Your task to perform on an android device: Open CNN.com Image 0: 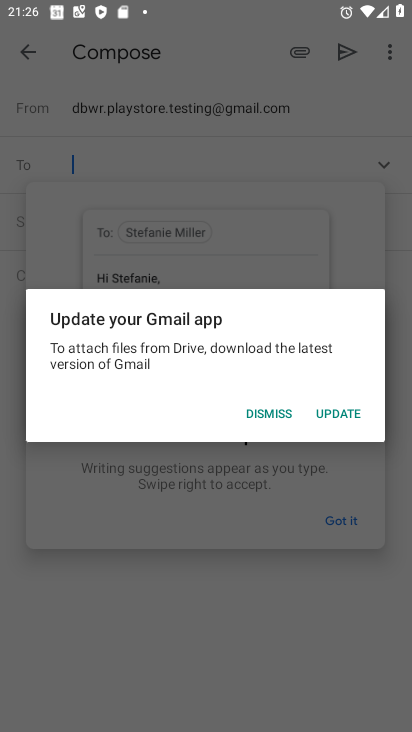
Step 0: press home button
Your task to perform on an android device: Open CNN.com Image 1: 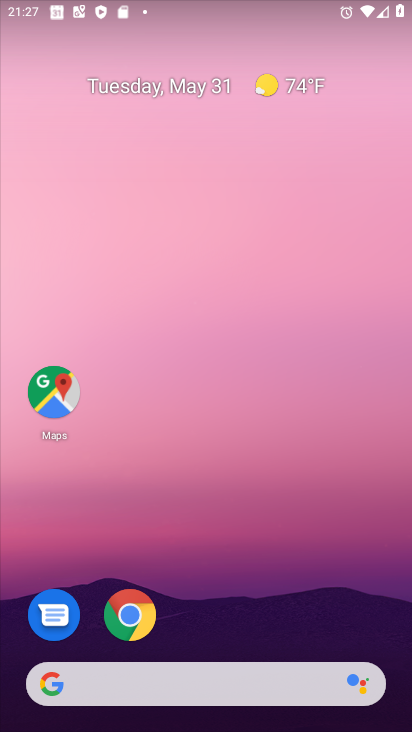
Step 1: click (111, 624)
Your task to perform on an android device: Open CNN.com Image 2: 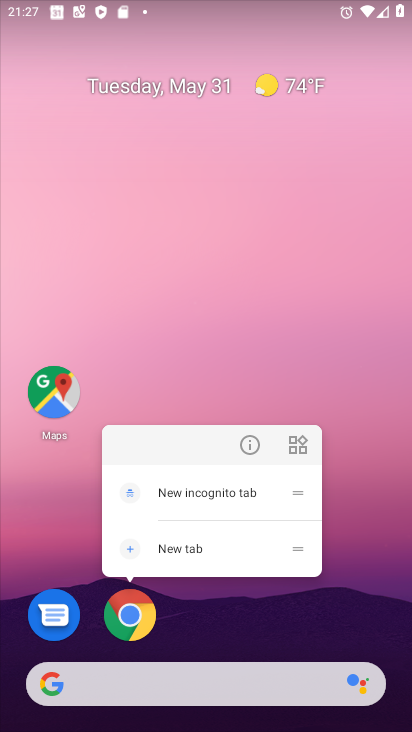
Step 2: click (135, 604)
Your task to perform on an android device: Open CNN.com Image 3: 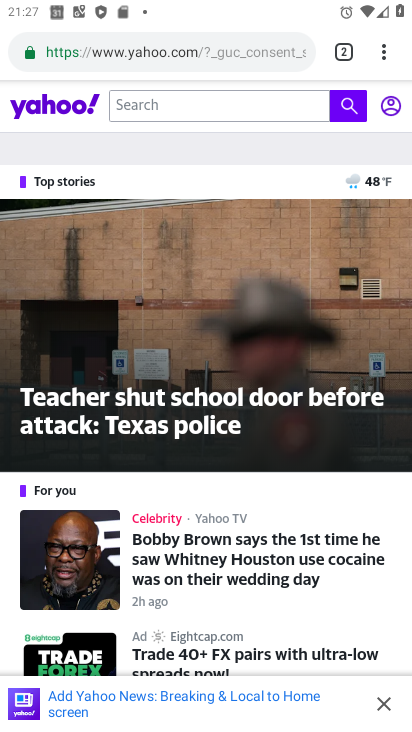
Step 3: click (336, 48)
Your task to perform on an android device: Open CNN.com Image 4: 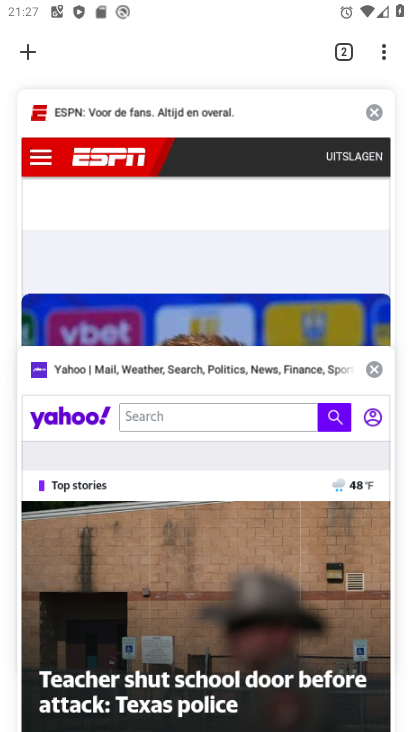
Step 4: click (23, 57)
Your task to perform on an android device: Open CNN.com Image 5: 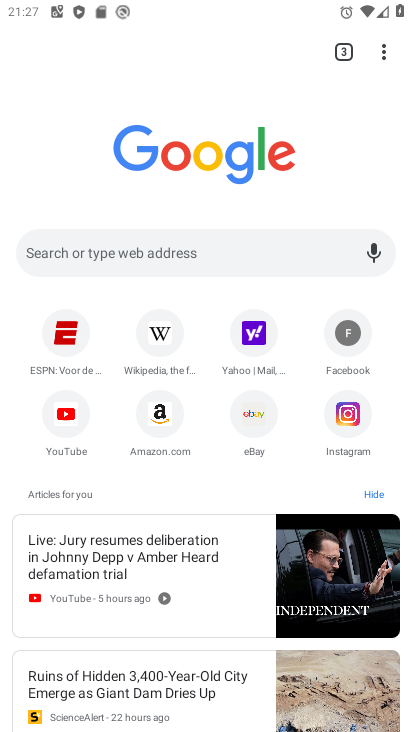
Step 5: click (170, 235)
Your task to perform on an android device: Open CNN.com Image 6: 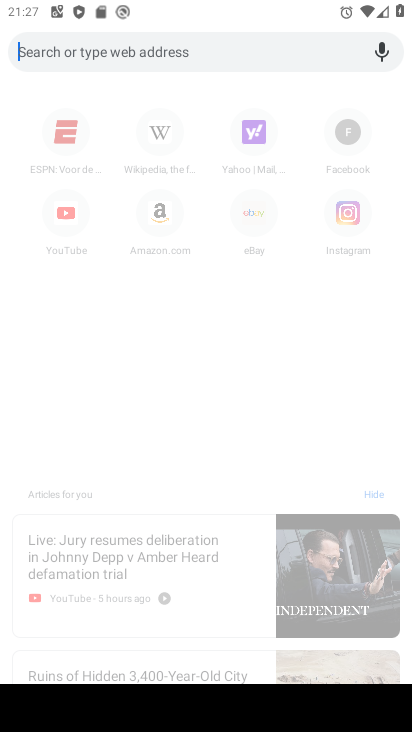
Step 6: type "CNN.com"
Your task to perform on an android device: Open CNN.com Image 7: 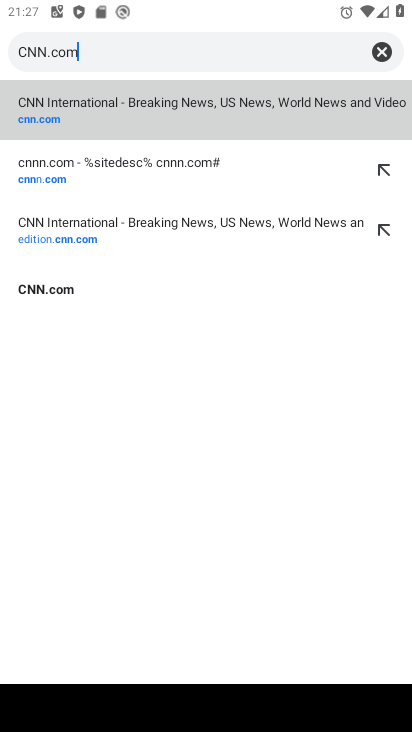
Step 7: click (93, 99)
Your task to perform on an android device: Open CNN.com Image 8: 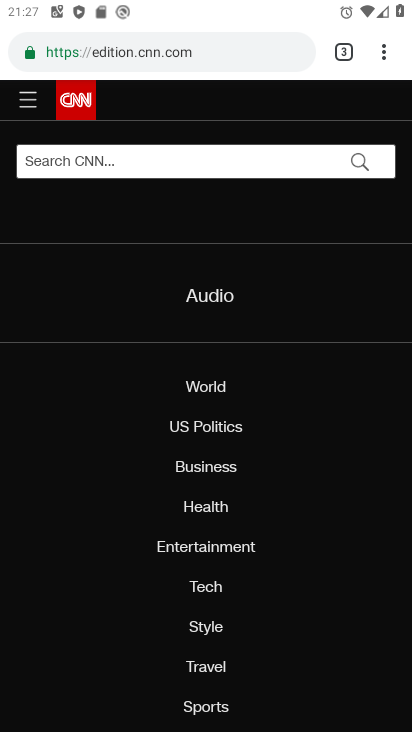
Step 8: task complete